Your task to perform on an android device: Open Yahoo.com Image 0: 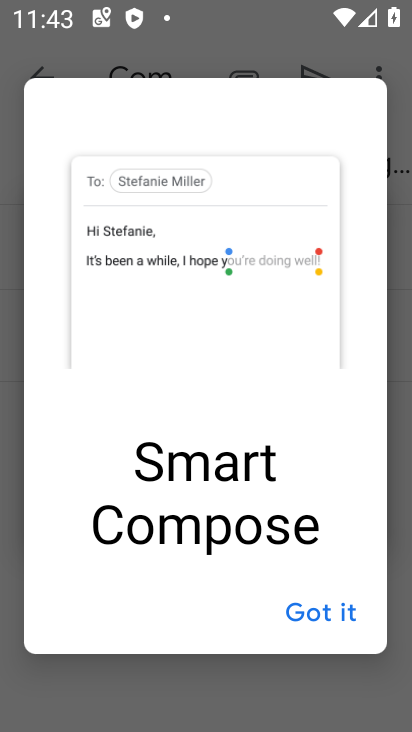
Step 0: press home button
Your task to perform on an android device: Open Yahoo.com Image 1: 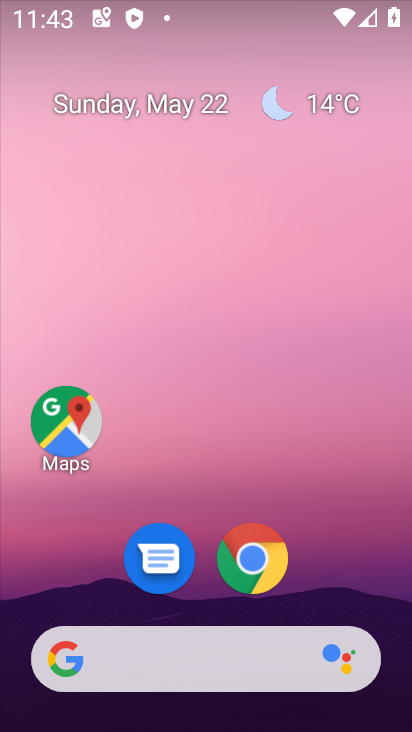
Step 1: click (259, 560)
Your task to perform on an android device: Open Yahoo.com Image 2: 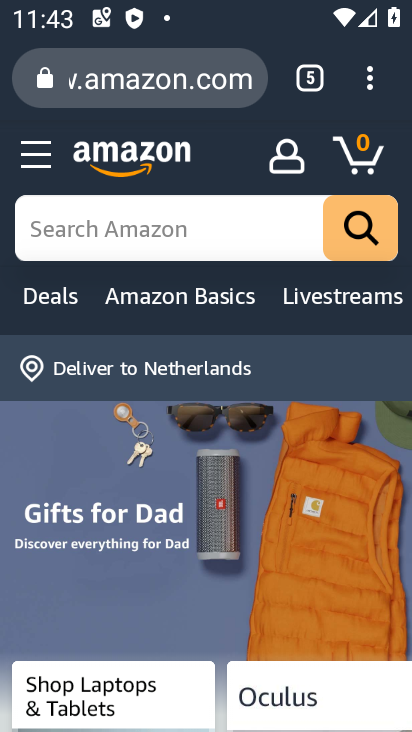
Step 2: click (104, 77)
Your task to perform on an android device: Open Yahoo.com Image 3: 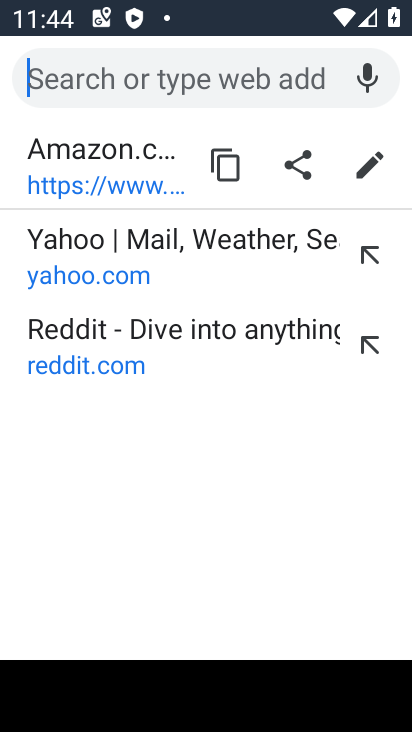
Step 3: click (78, 271)
Your task to perform on an android device: Open Yahoo.com Image 4: 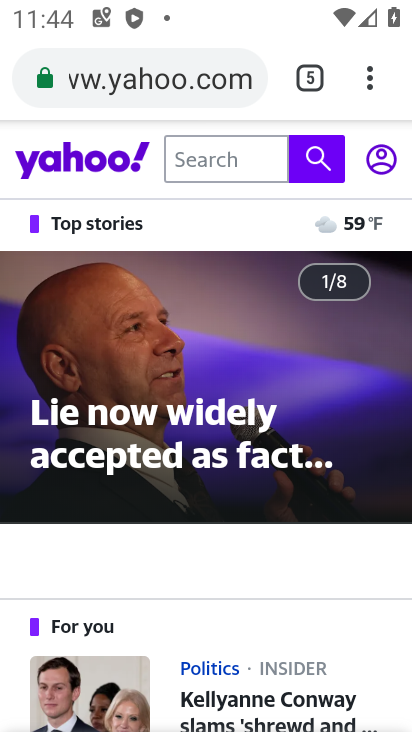
Step 4: task complete